Your task to perform on an android device: turn pop-ups off in chrome Image 0: 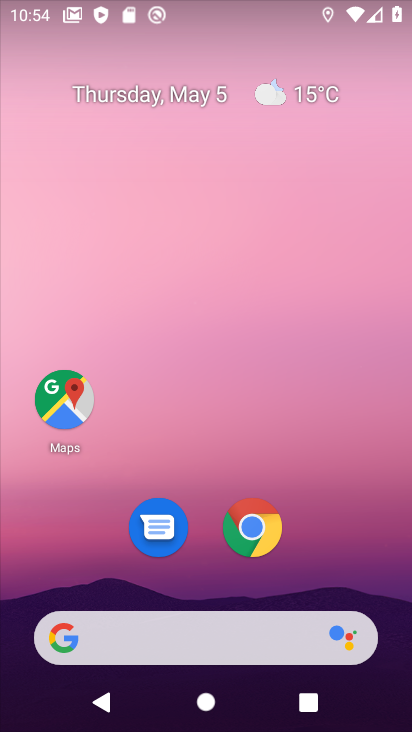
Step 0: click (257, 527)
Your task to perform on an android device: turn pop-ups off in chrome Image 1: 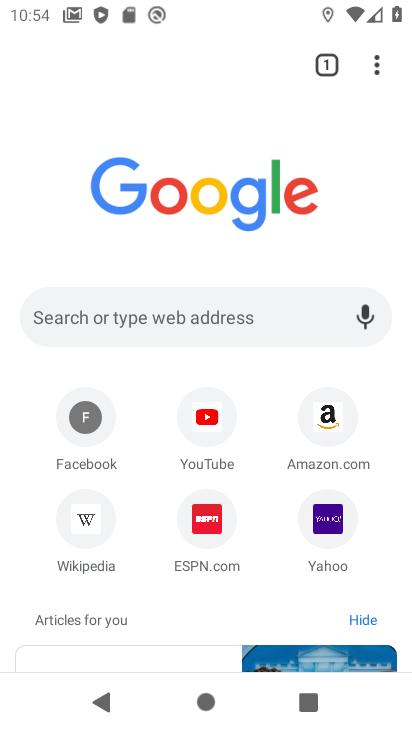
Step 1: click (373, 73)
Your task to perform on an android device: turn pop-ups off in chrome Image 2: 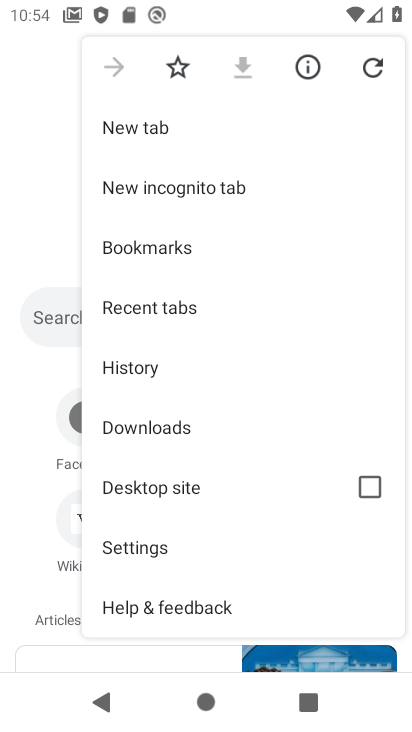
Step 2: click (168, 555)
Your task to perform on an android device: turn pop-ups off in chrome Image 3: 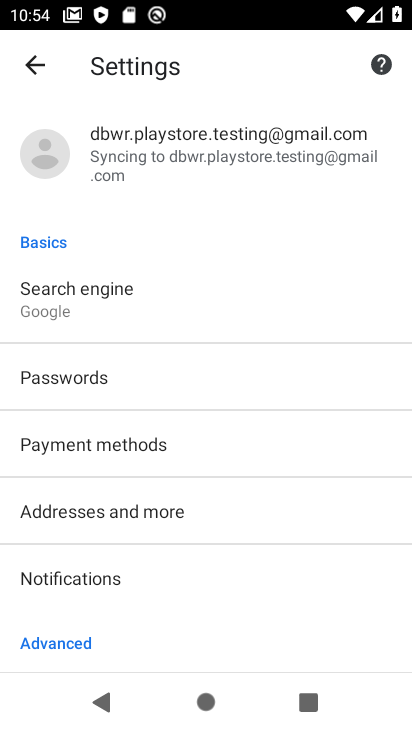
Step 3: drag from (143, 586) to (196, 218)
Your task to perform on an android device: turn pop-ups off in chrome Image 4: 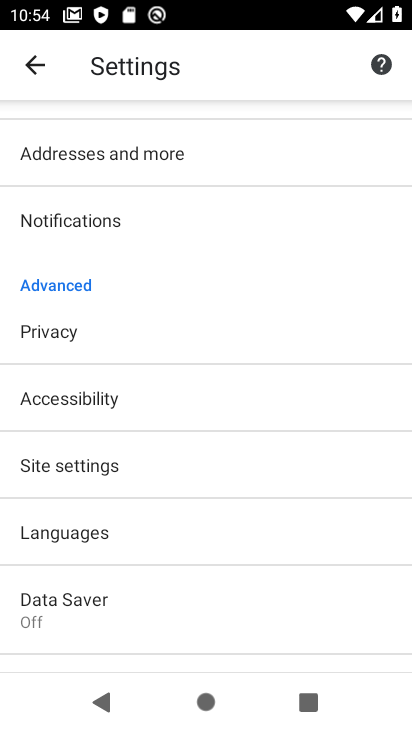
Step 4: click (120, 469)
Your task to perform on an android device: turn pop-ups off in chrome Image 5: 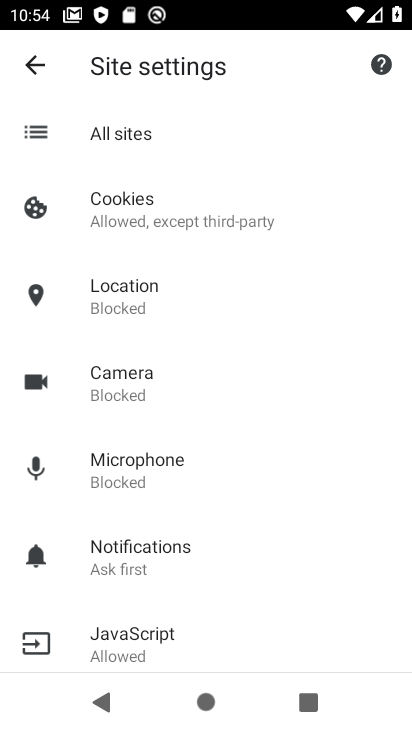
Step 5: drag from (171, 577) to (220, 194)
Your task to perform on an android device: turn pop-ups off in chrome Image 6: 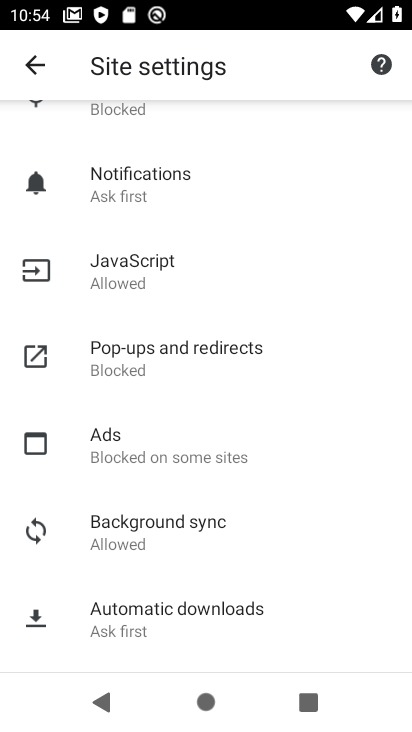
Step 6: click (149, 350)
Your task to perform on an android device: turn pop-ups off in chrome Image 7: 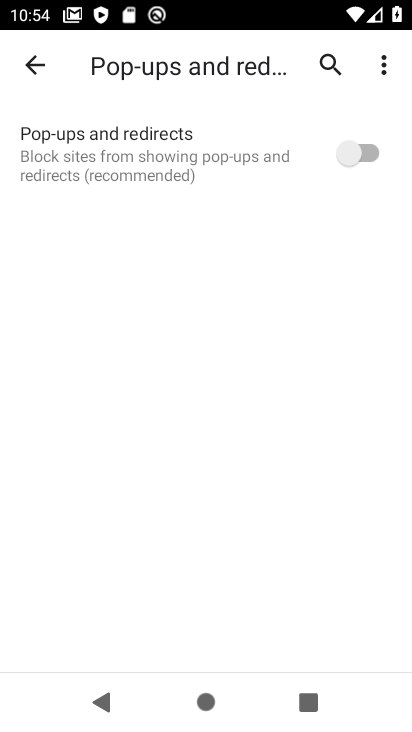
Step 7: task complete